Your task to perform on an android device: Search for flights from Helsinki to Tokyo Image 0: 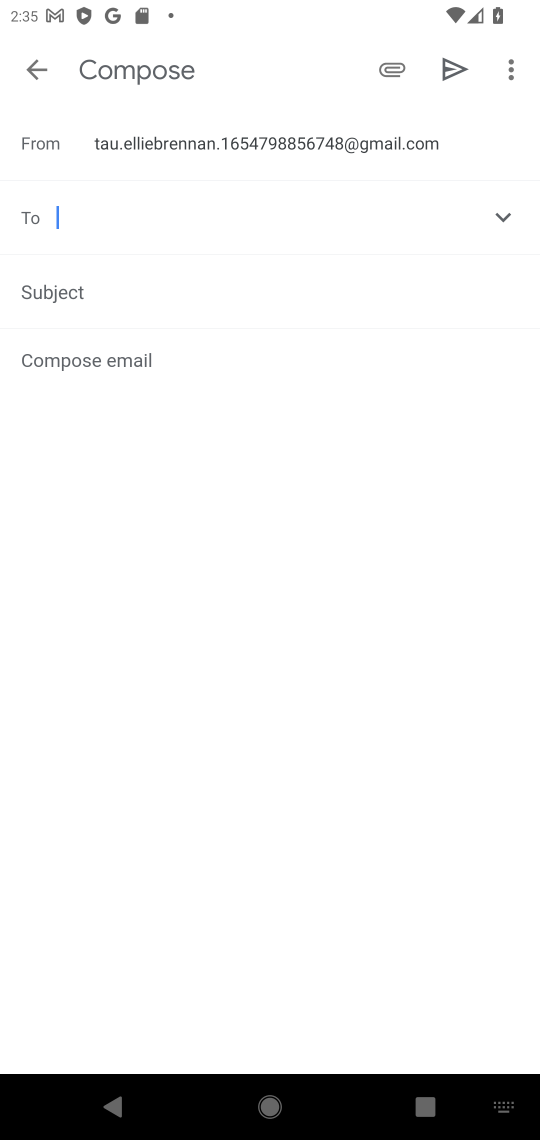
Step 0: press home button
Your task to perform on an android device: Search for flights from Helsinki to Tokyo Image 1: 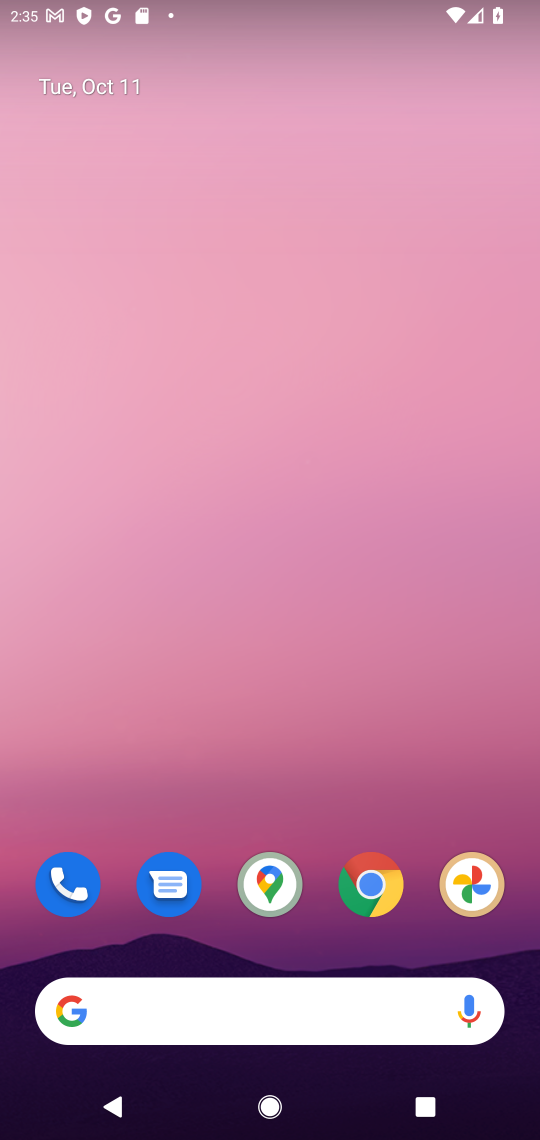
Step 1: click (371, 885)
Your task to perform on an android device: Search for flights from Helsinki to Tokyo Image 2: 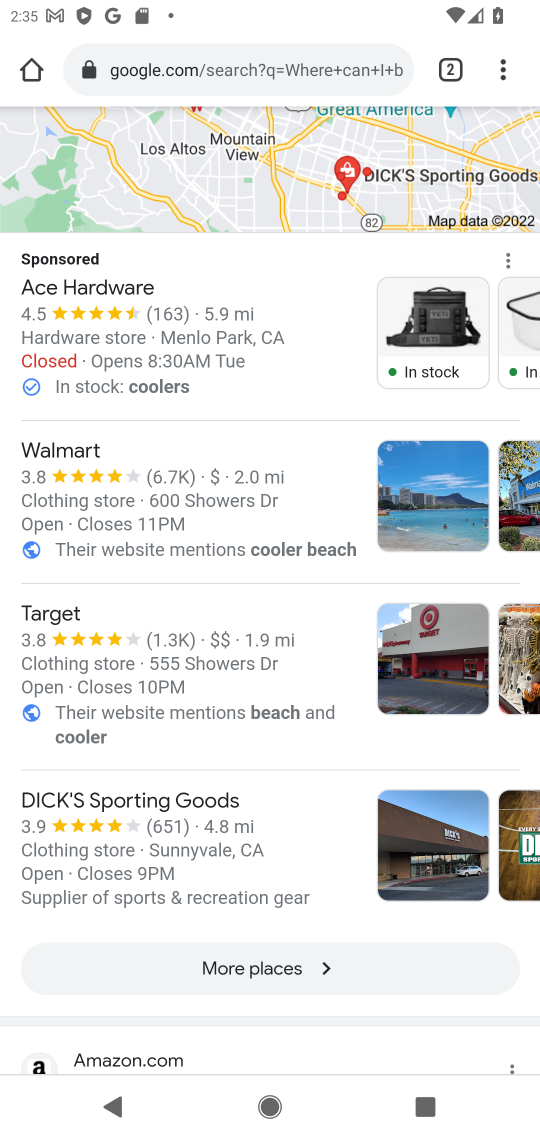
Step 2: click (312, 78)
Your task to perform on an android device: Search for flights from Helsinki to Tokyo Image 3: 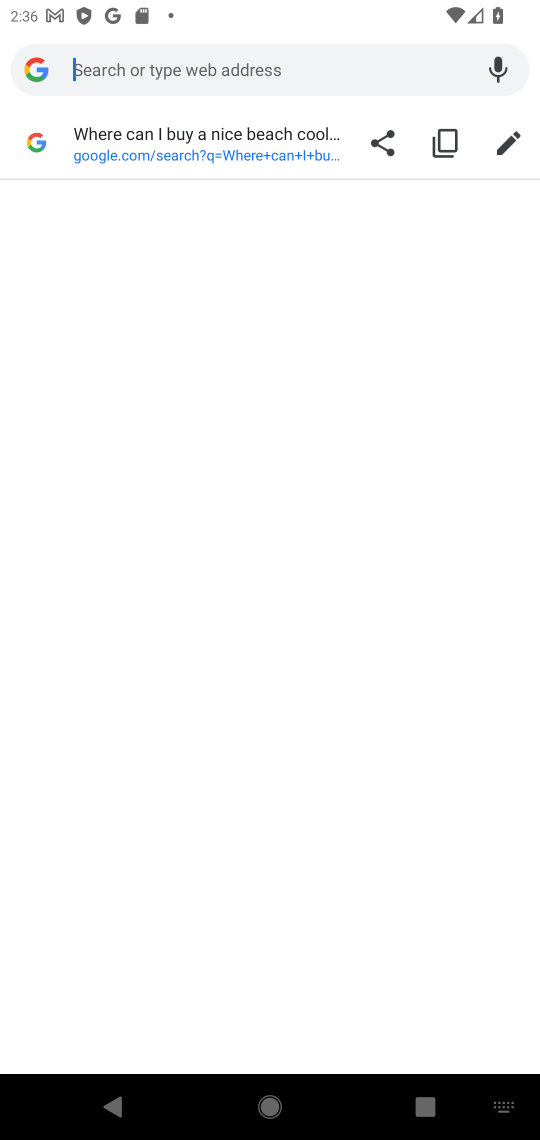
Step 3: type "flights from Helsinki to Tokyo"
Your task to perform on an android device: Search for flights from Helsinki to Tokyo Image 4: 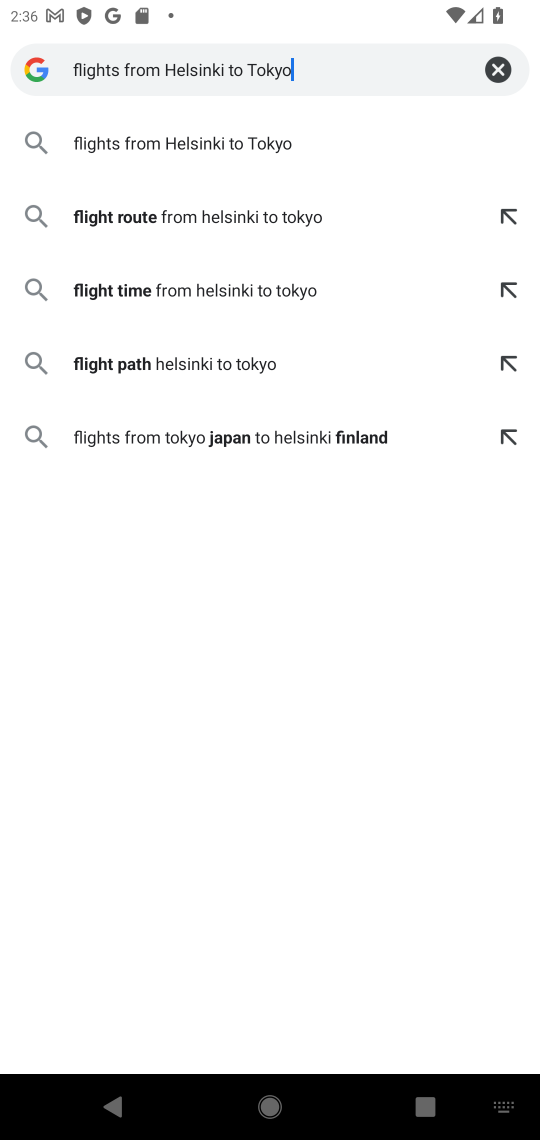
Step 4: click (268, 145)
Your task to perform on an android device: Search for flights from Helsinki to Tokyo Image 5: 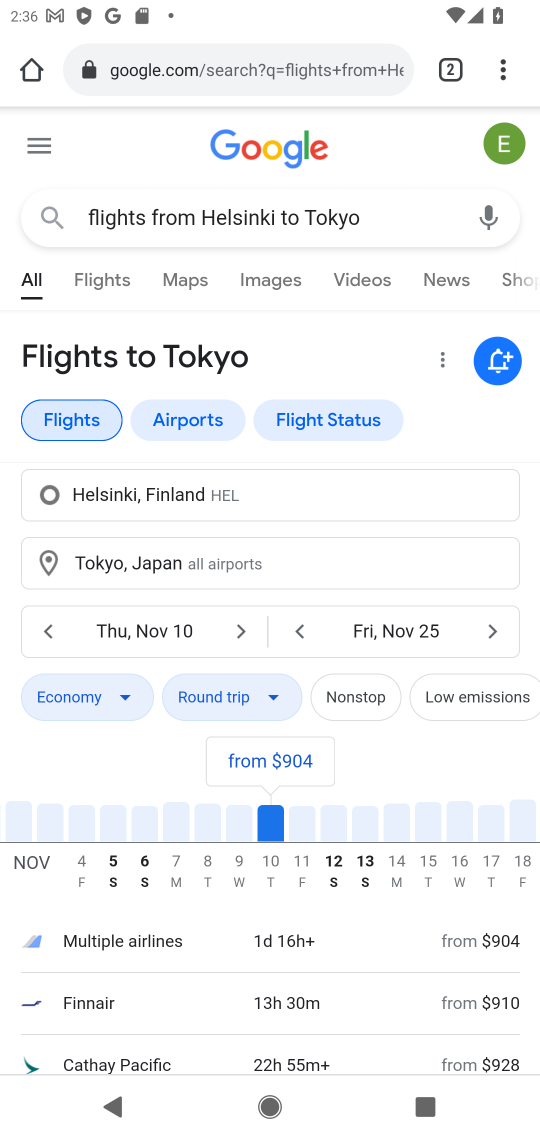
Step 5: task complete